Your task to perform on an android device: open a bookmark in the chrome app Image 0: 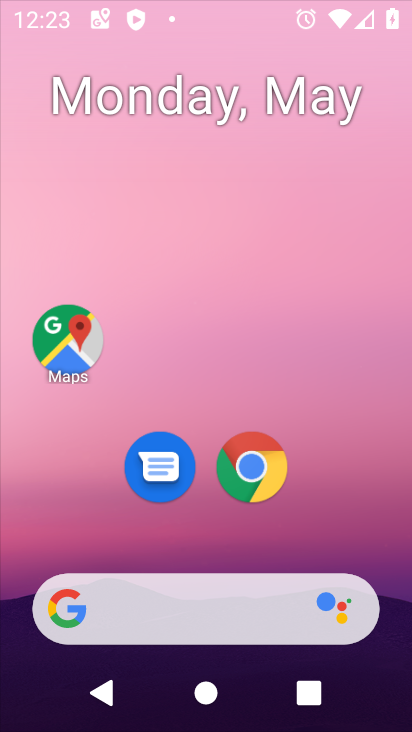
Step 0: drag from (387, 609) to (225, 4)
Your task to perform on an android device: open a bookmark in the chrome app Image 1: 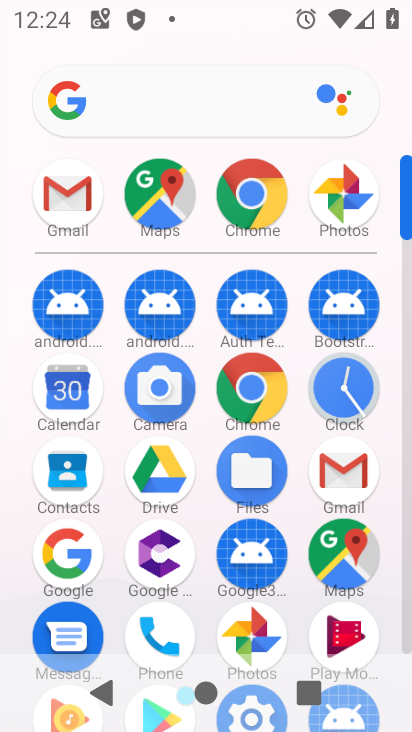
Step 1: click (238, 185)
Your task to perform on an android device: open a bookmark in the chrome app Image 2: 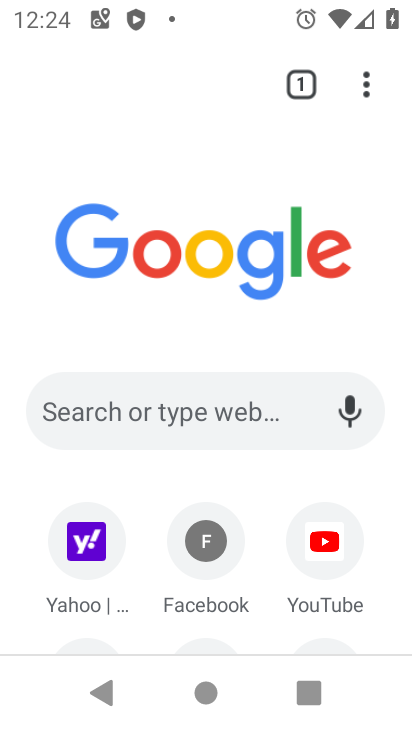
Step 2: click (362, 80)
Your task to perform on an android device: open a bookmark in the chrome app Image 3: 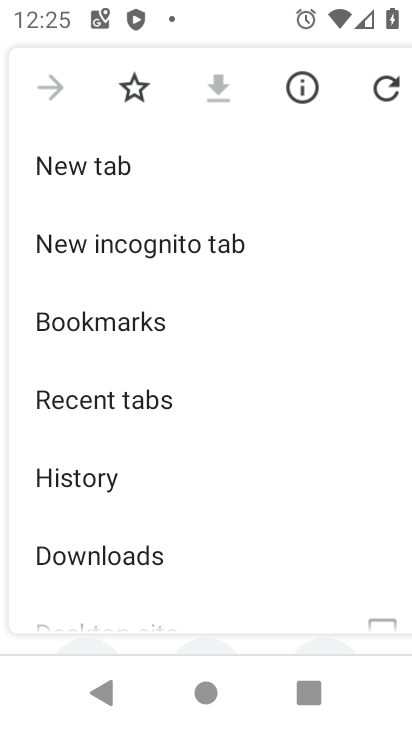
Step 3: click (161, 326)
Your task to perform on an android device: open a bookmark in the chrome app Image 4: 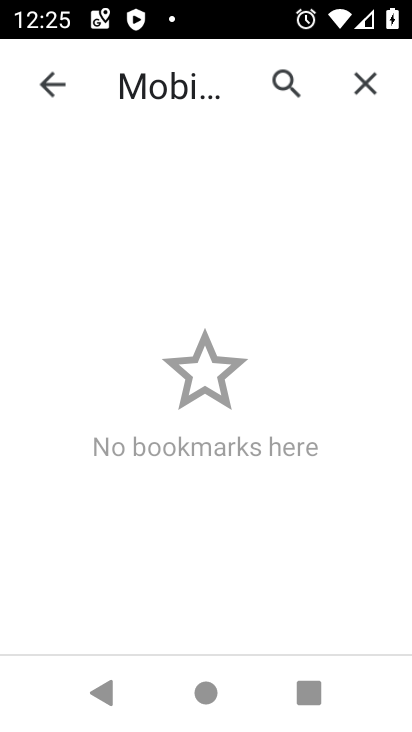
Step 4: task complete